Your task to perform on an android device: turn off sleep mode Image 0: 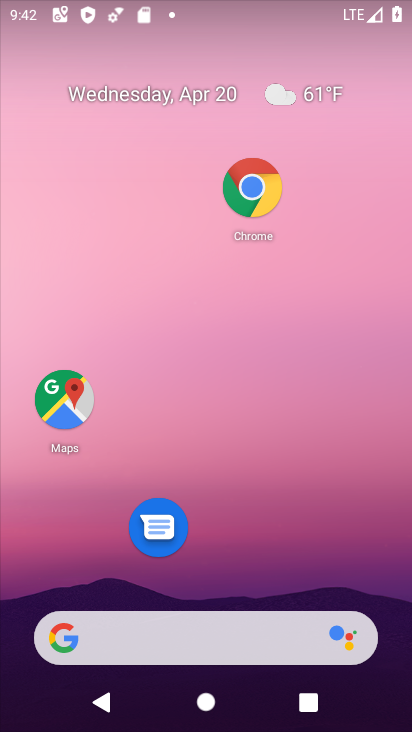
Step 0: click (254, 43)
Your task to perform on an android device: turn off sleep mode Image 1: 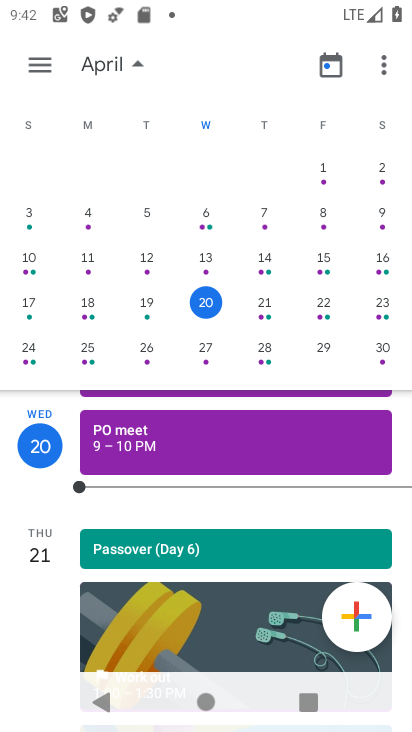
Step 1: drag from (215, 582) to (210, 213)
Your task to perform on an android device: turn off sleep mode Image 2: 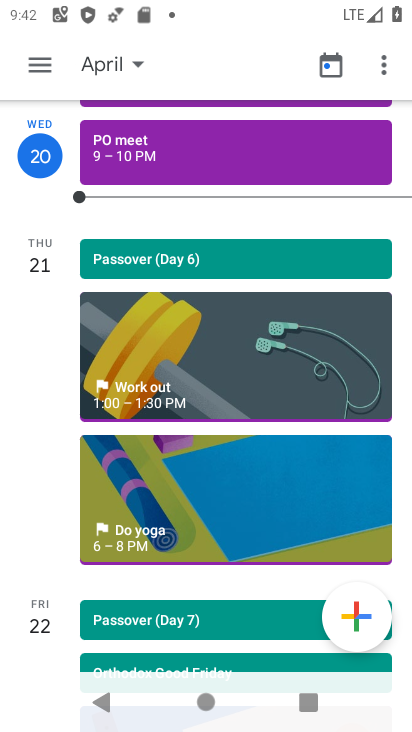
Step 2: press home button
Your task to perform on an android device: turn off sleep mode Image 3: 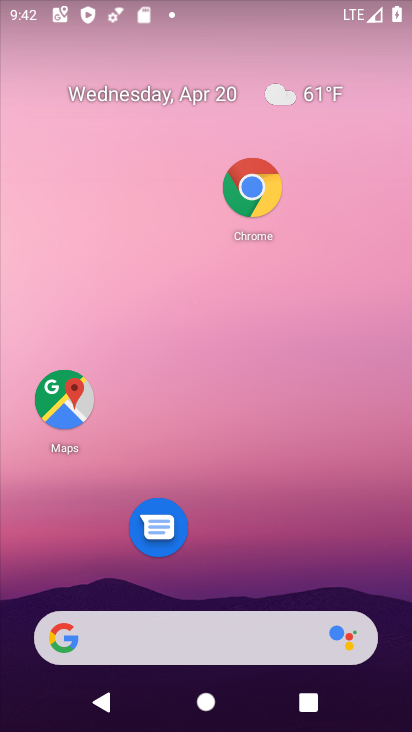
Step 3: drag from (224, 534) to (162, 13)
Your task to perform on an android device: turn off sleep mode Image 4: 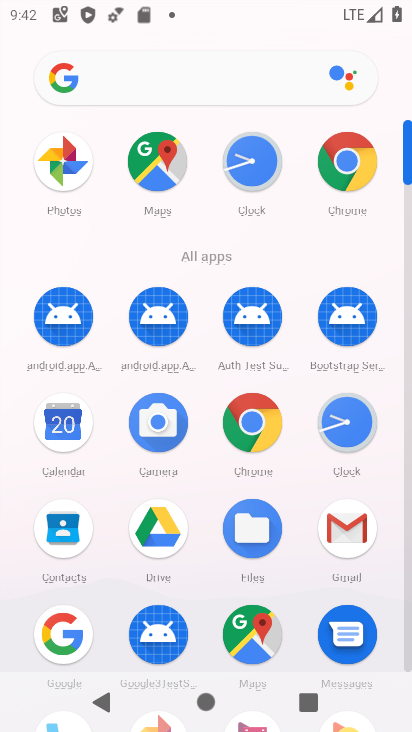
Step 4: drag from (212, 515) to (172, 271)
Your task to perform on an android device: turn off sleep mode Image 5: 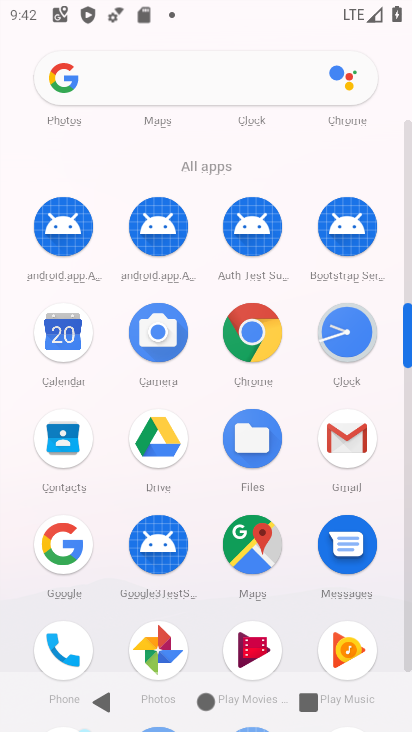
Step 5: drag from (202, 593) to (155, 262)
Your task to perform on an android device: turn off sleep mode Image 6: 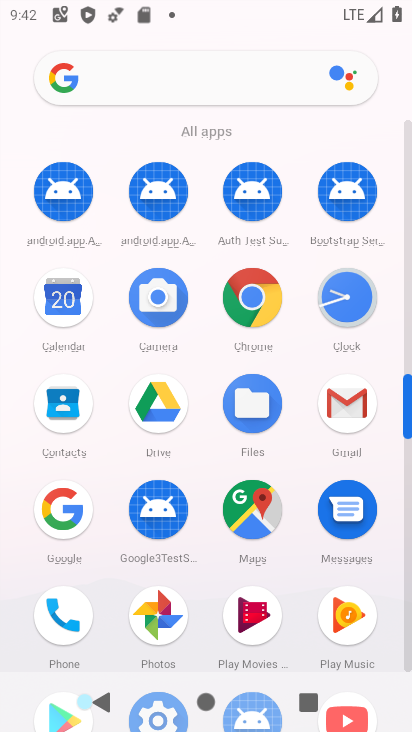
Step 6: drag from (201, 569) to (175, 185)
Your task to perform on an android device: turn off sleep mode Image 7: 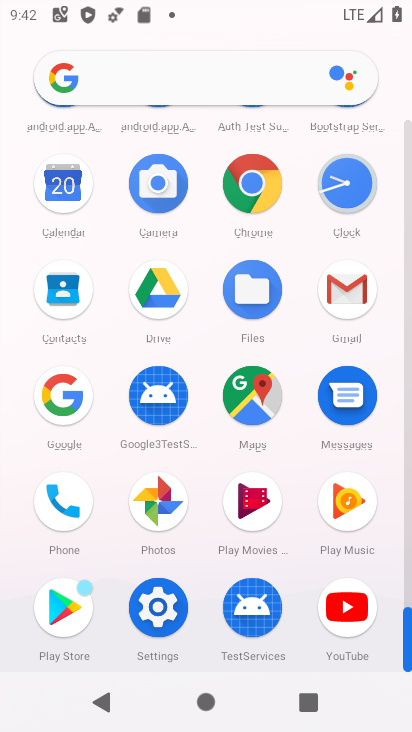
Step 7: click (153, 612)
Your task to perform on an android device: turn off sleep mode Image 8: 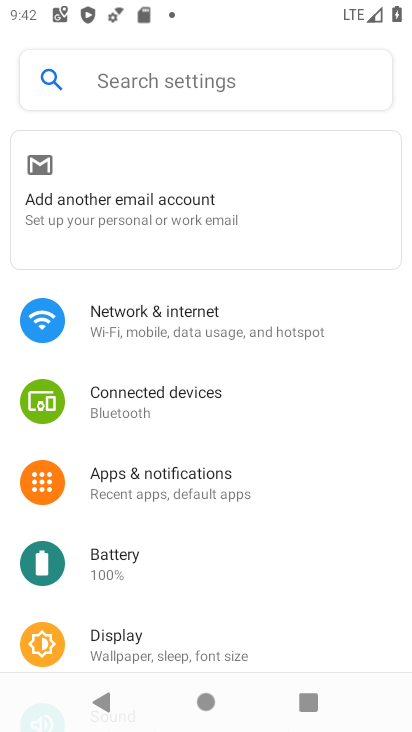
Step 8: click (121, 632)
Your task to perform on an android device: turn off sleep mode Image 9: 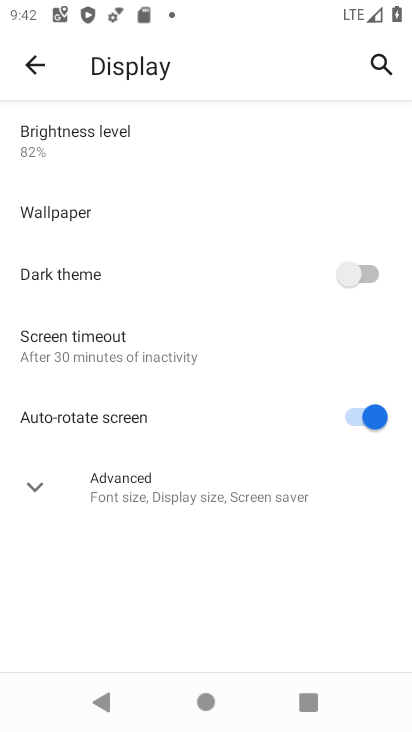
Step 9: task complete